Your task to perform on an android device: Do I have any events tomorrow? Image 0: 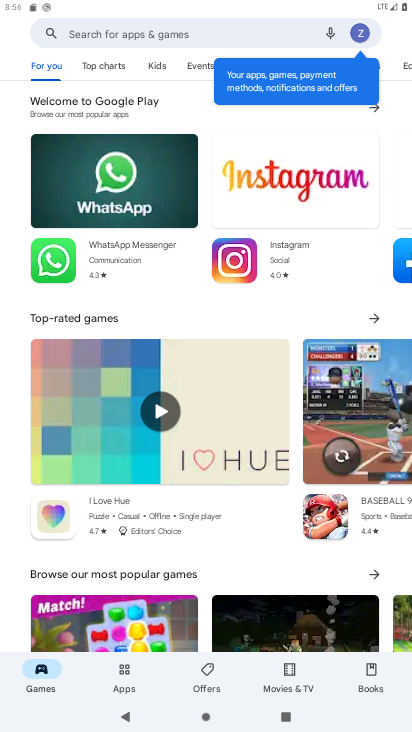
Step 0: press home button
Your task to perform on an android device: Do I have any events tomorrow? Image 1: 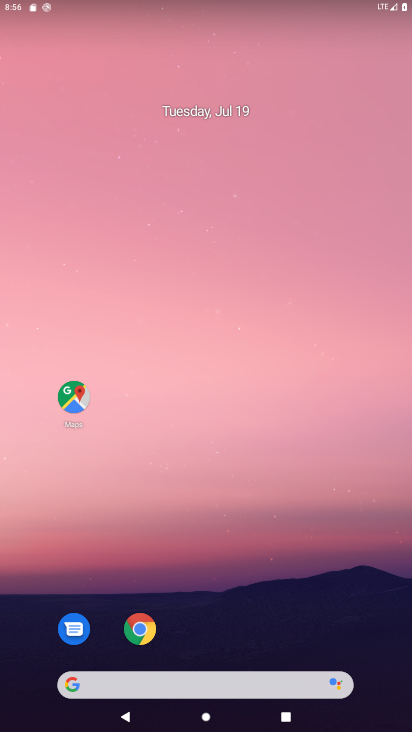
Step 1: drag from (204, 656) to (133, 111)
Your task to perform on an android device: Do I have any events tomorrow? Image 2: 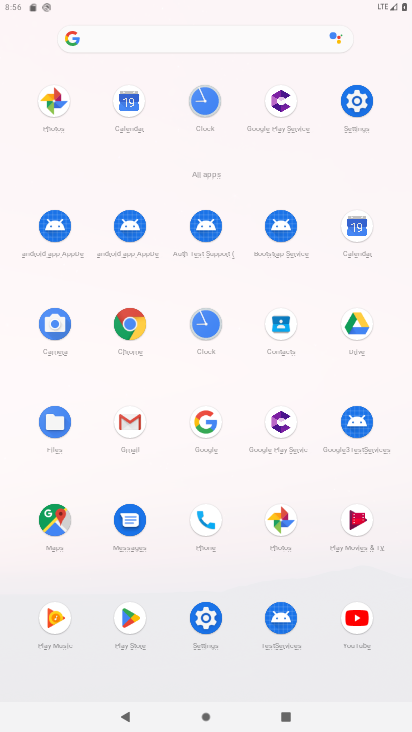
Step 2: click (344, 233)
Your task to perform on an android device: Do I have any events tomorrow? Image 3: 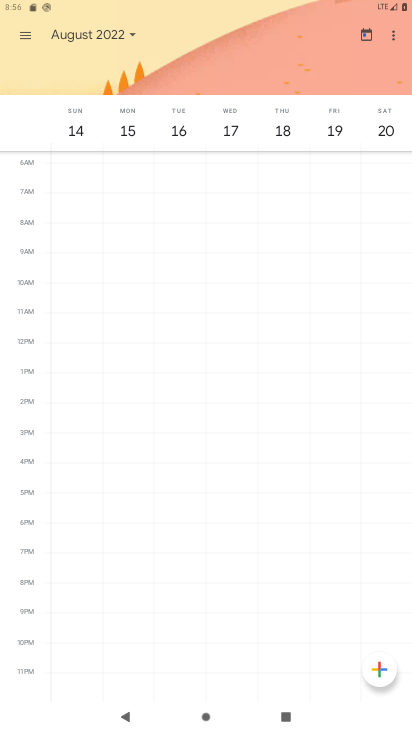
Step 3: click (366, 32)
Your task to perform on an android device: Do I have any events tomorrow? Image 4: 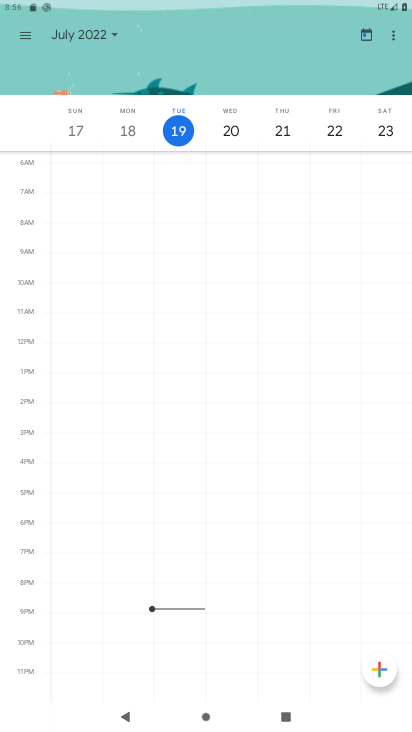
Step 4: click (234, 124)
Your task to perform on an android device: Do I have any events tomorrow? Image 5: 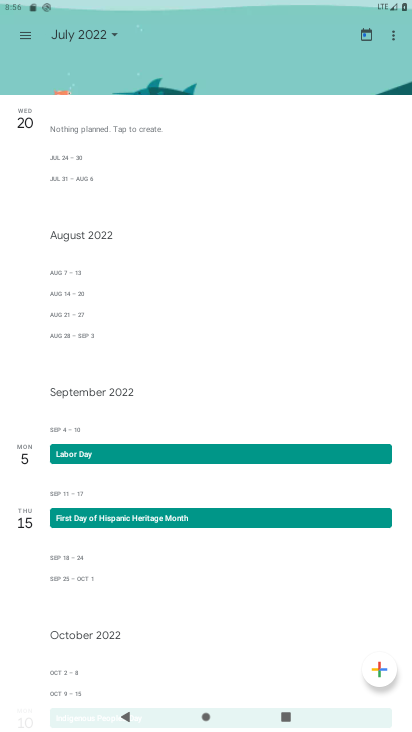
Step 5: task complete